Your task to perform on an android device: Go to Wikipedia Image 0: 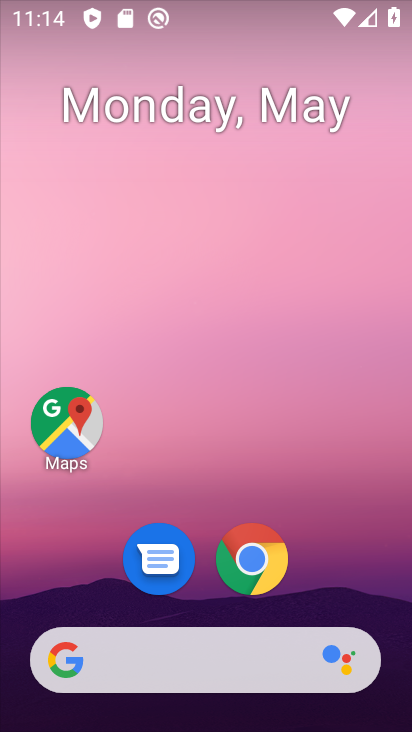
Step 0: click (258, 575)
Your task to perform on an android device: Go to Wikipedia Image 1: 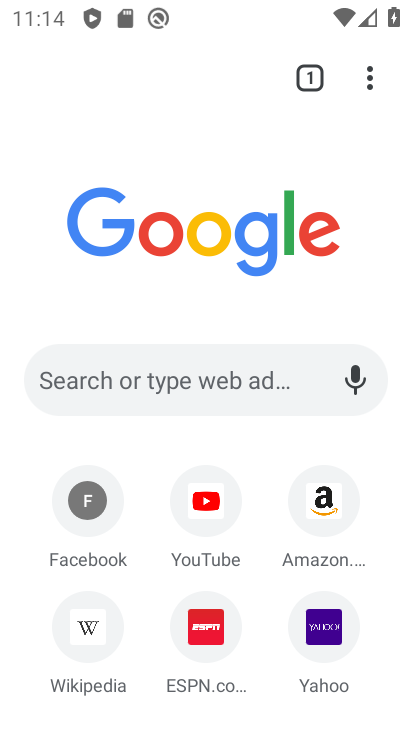
Step 1: click (90, 640)
Your task to perform on an android device: Go to Wikipedia Image 2: 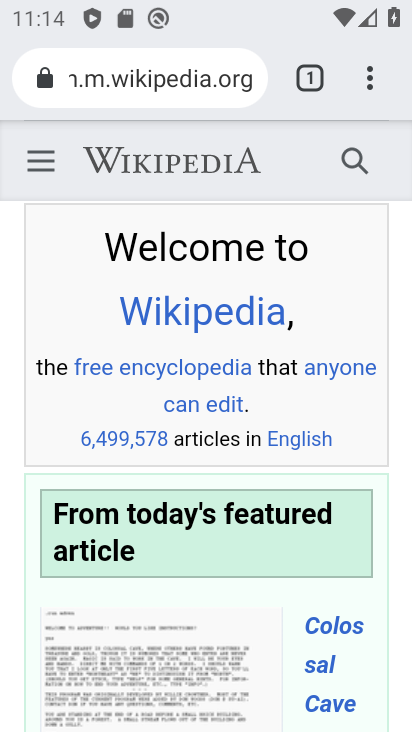
Step 2: task complete